Your task to perform on an android device: Go to accessibility settings Image 0: 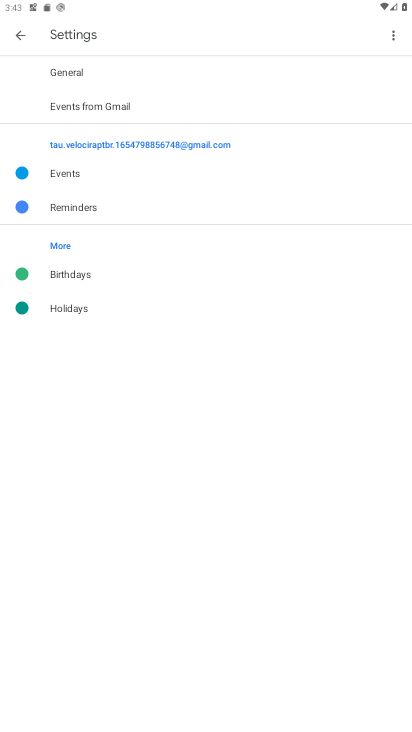
Step 0: press home button
Your task to perform on an android device: Go to accessibility settings Image 1: 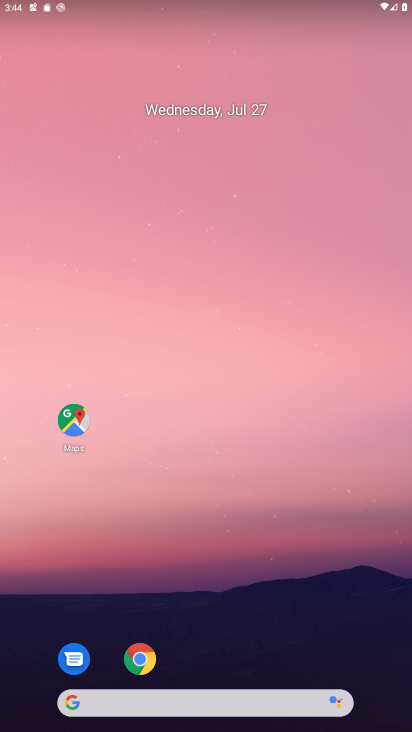
Step 1: drag from (285, 531) to (213, 1)
Your task to perform on an android device: Go to accessibility settings Image 2: 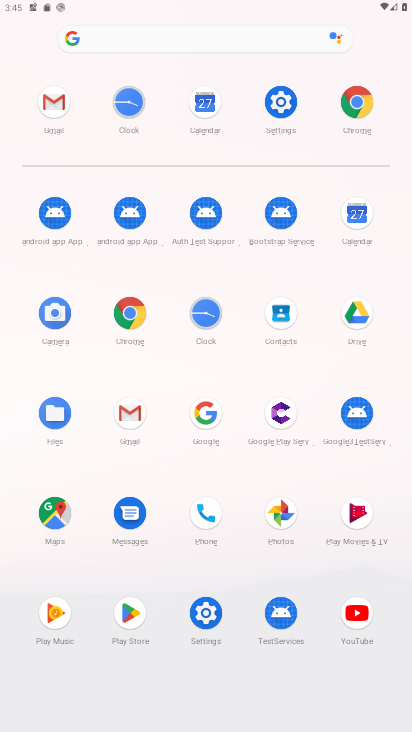
Step 2: click (275, 97)
Your task to perform on an android device: Go to accessibility settings Image 3: 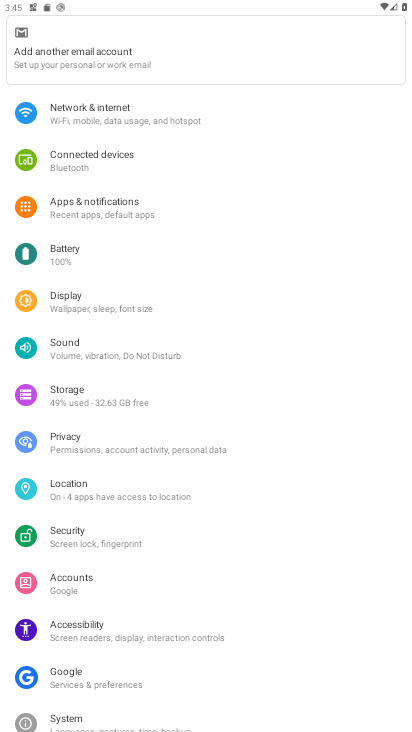
Step 3: click (116, 628)
Your task to perform on an android device: Go to accessibility settings Image 4: 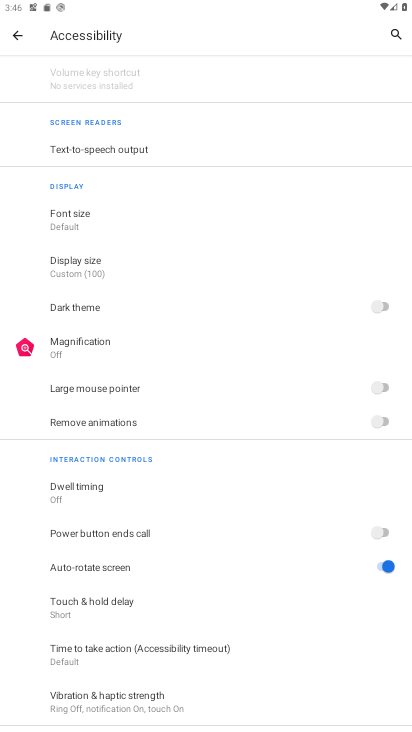
Step 4: task complete